Your task to perform on an android device: Turn on the flashlight Image 0: 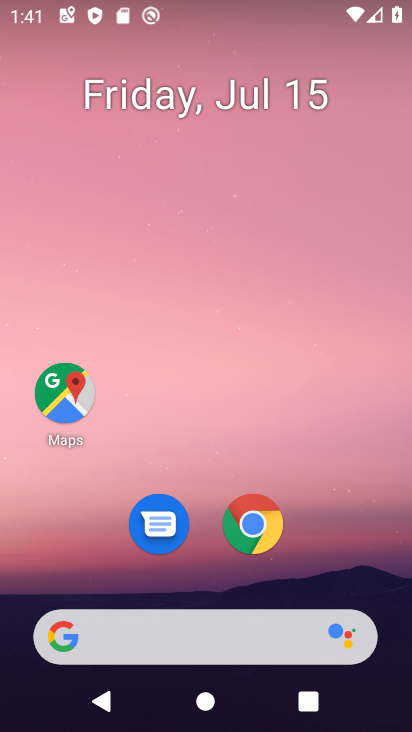
Step 0: press home button
Your task to perform on an android device: Turn on the flashlight Image 1: 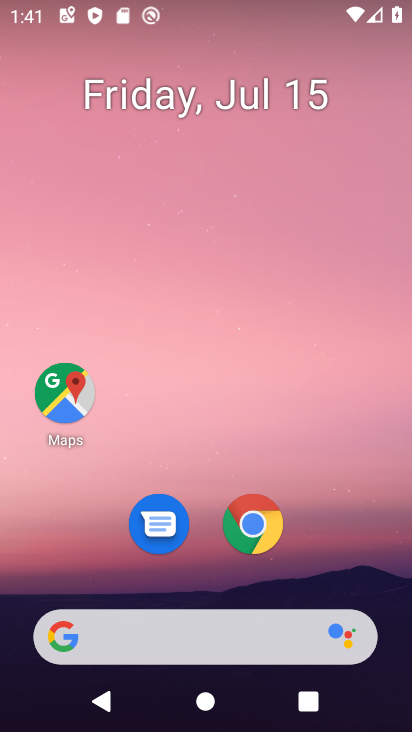
Step 1: task complete